Your task to perform on an android device: Open Chrome and go to settings Image 0: 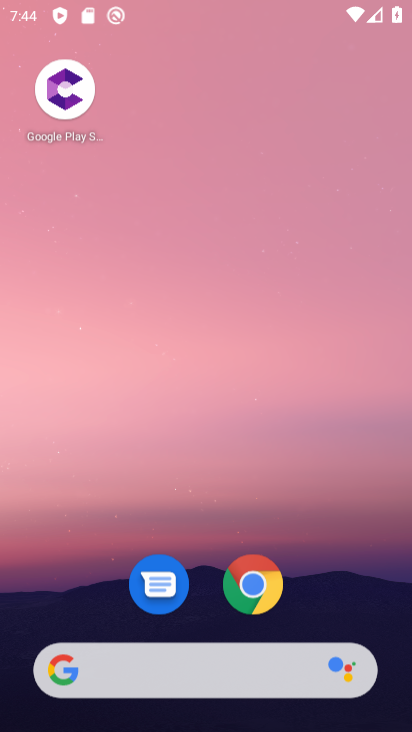
Step 0: drag from (238, 352) to (268, 0)
Your task to perform on an android device: Open Chrome and go to settings Image 1: 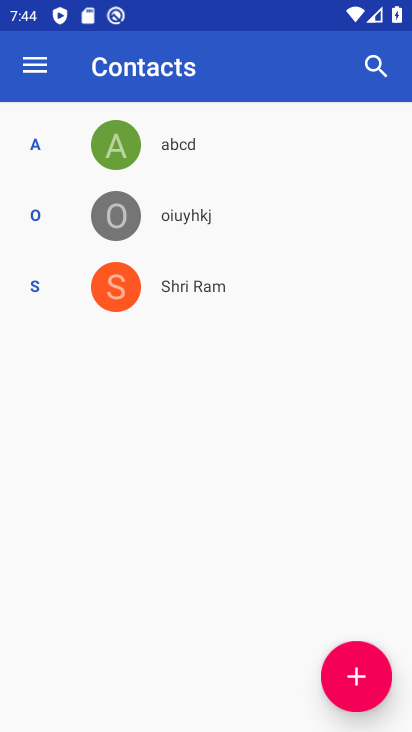
Step 1: press home button
Your task to perform on an android device: Open Chrome and go to settings Image 2: 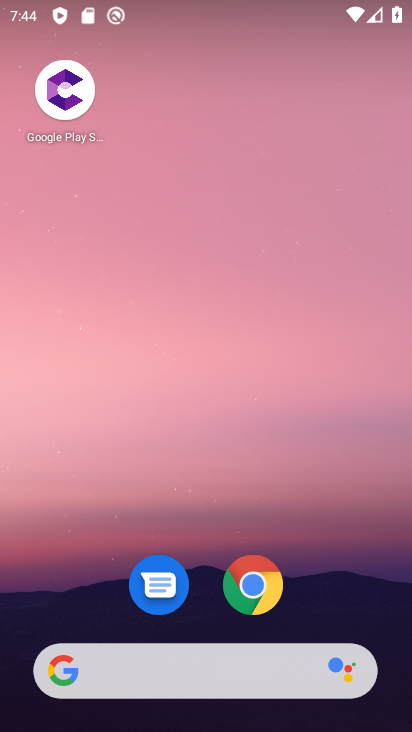
Step 2: click (260, 598)
Your task to perform on an android device: Open Chrome and go to settings Image 3: 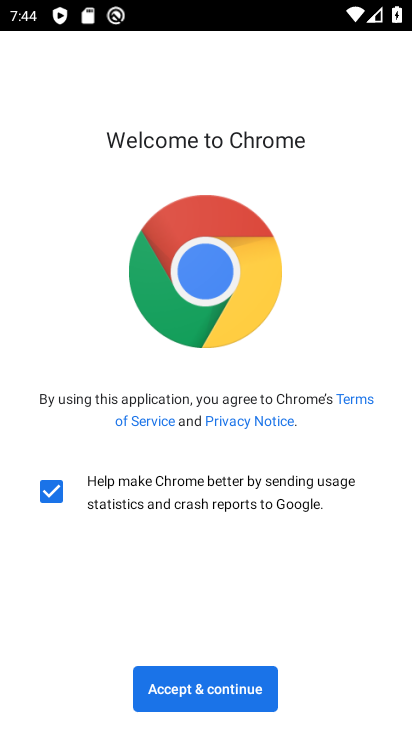
Step 3: click (242, 705)
Your task to perform on an android device: Open Chrome and go to settings Image 4: 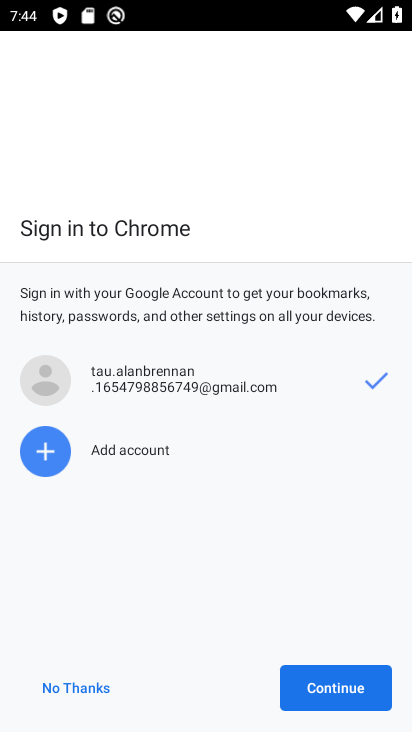
Step 4: click (301, 683)
Your task to perform on an android device: Open Chrome and go to settings Image 5: 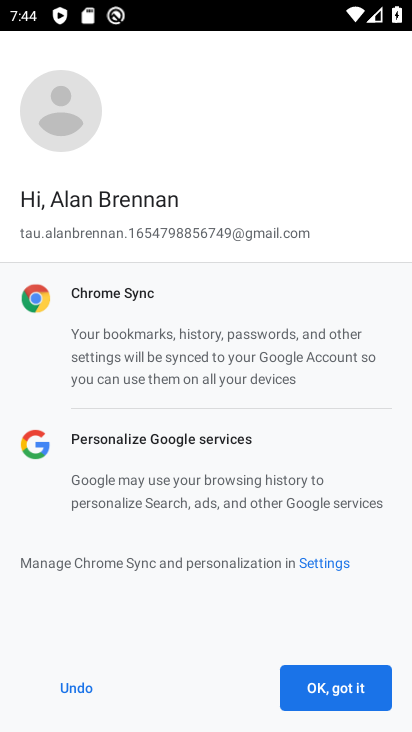
Step 5: click (310, 686)
Your task to perform on an android device: Open Chrome and go to settings Image 6: 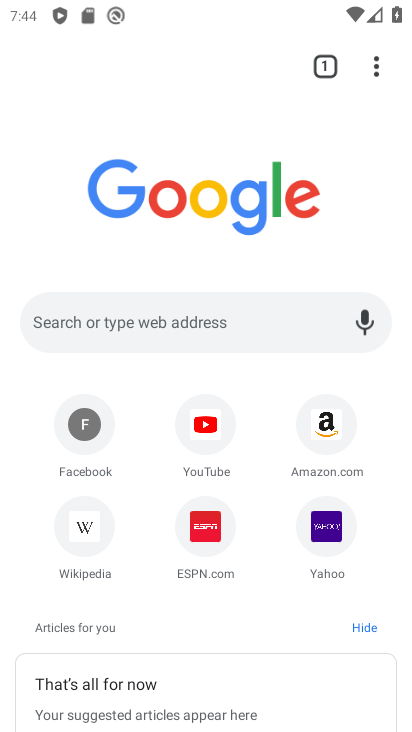
Step 6: click (375, 62)
Your task to perform on an android device: Open Chrome and go to settings Image 7: 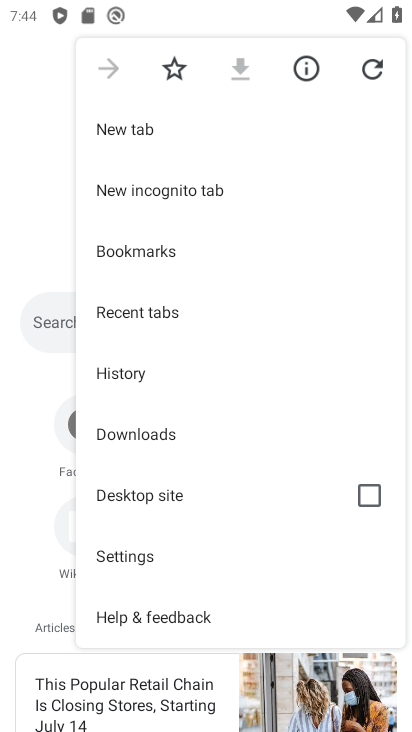
Step 7: click (122, 554)
Your task to perform on an android device: Open Chrome and go to settings Image 8: 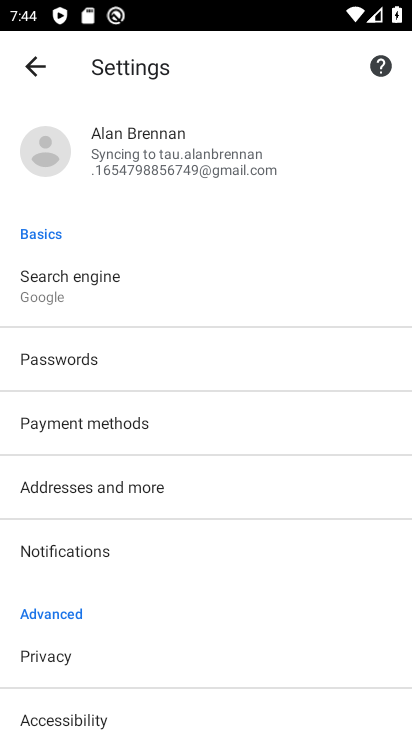
Step 8: task complete